Your task to perform on an android device: Go to Yahoo.com Image 0: 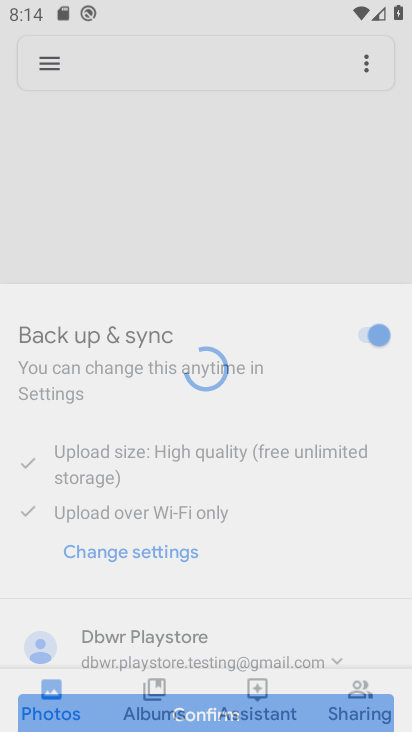
Step 0: press home button
Your task to perform on an android device: Go to Yahoo.com Image 1: 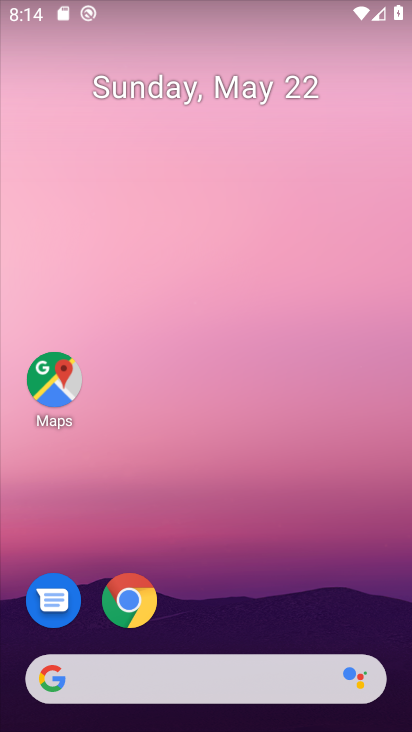
Step 1: drag from (178, 669) to (187, 320)
Your task to perform on an android device: Go to Yahoo.com Image 2: 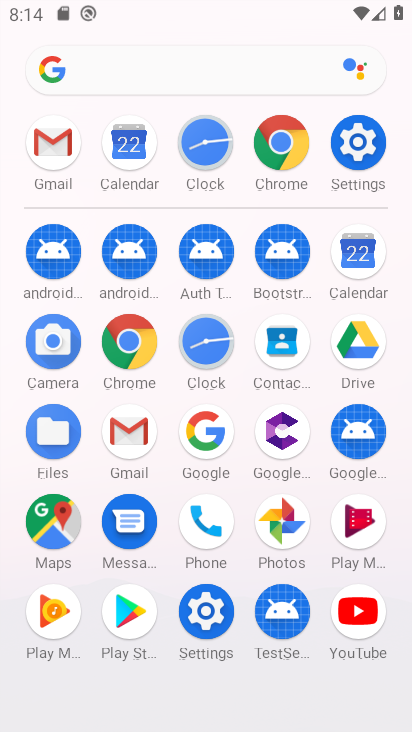
Step 2: click (270, 150)
Your task to perform on an android device: Go to Yahoo.com Image 3: 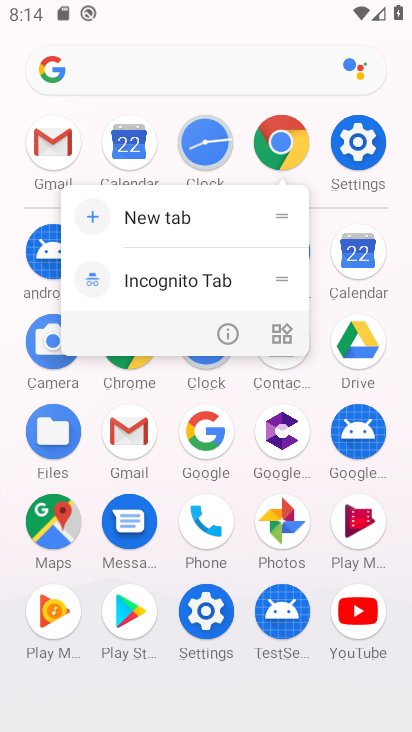
Step 3: click (273, 146)
Your task to perform on an android device: Go to Yahoo.com Image 4: 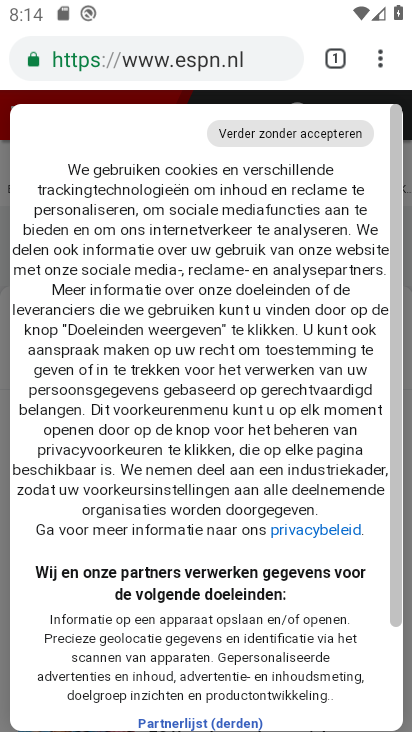
Step 4: click (344, 57)
Your task to perform on an android device: Go to Yahoo.com Image 5: 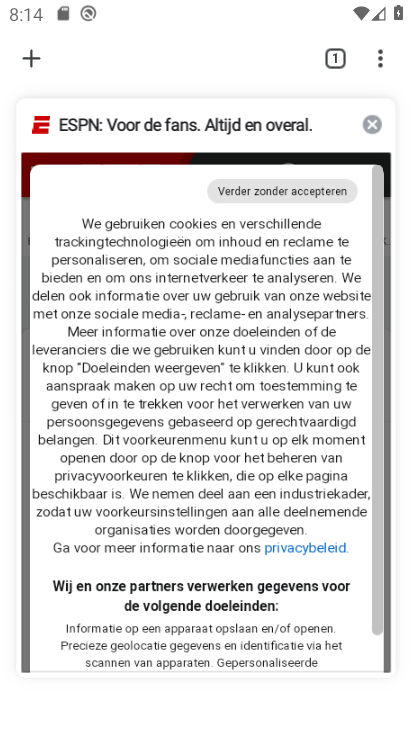
Step 5: click (382, 126)
Your task to perform on an android device: Go to Yahoo.com Image 6: 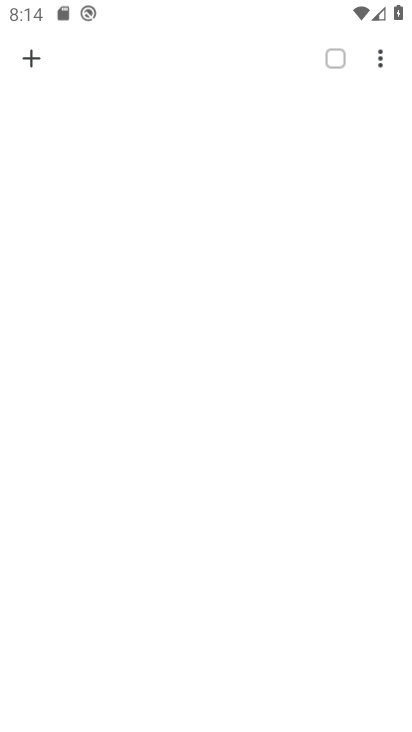
Step 6: click (26, 61)
Your task to perform on an android device: Go to Yahoo.com Image 7: 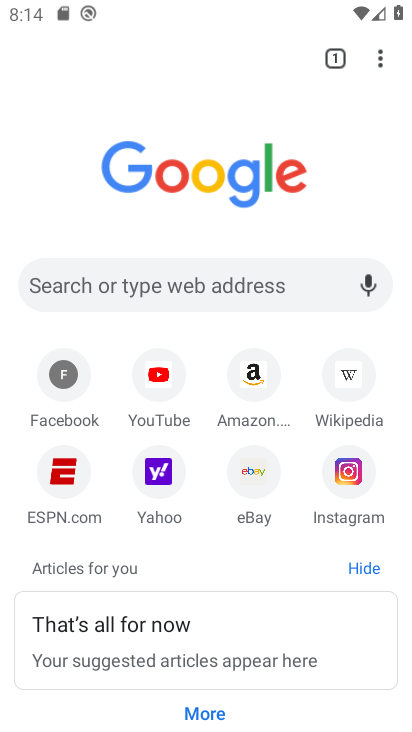
Step 7: click (151, 483)
Your task to perform on an android device: Go to Yahoo.com Image 8: 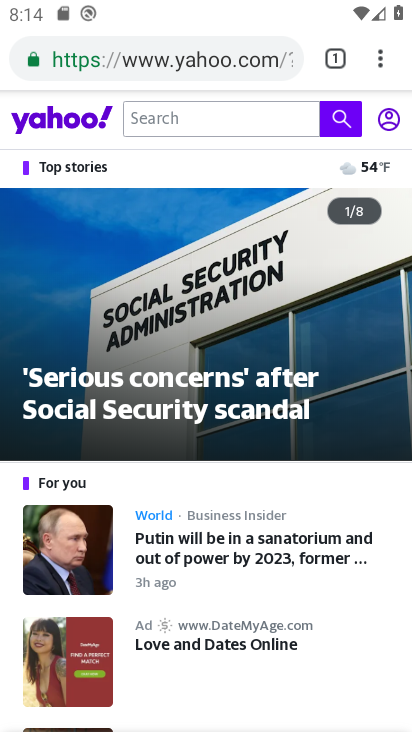
Step 8: task complete